Your task to perform on an android device: delete browsing data in the chrome app Image 0: 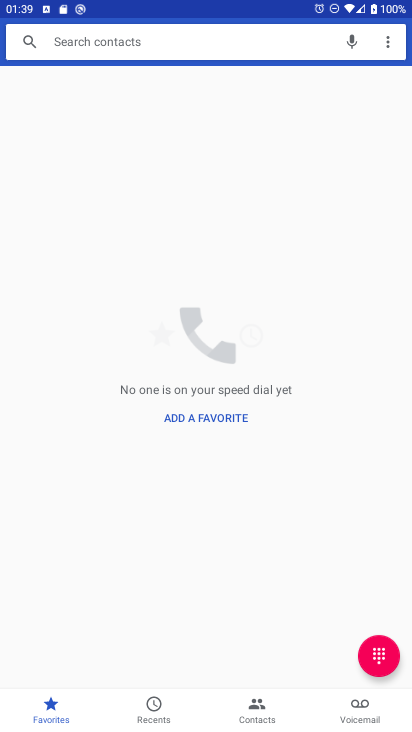
Step 0: press home button
Your task to perform on an android device: delete browsing data in the chrome app Image 1: 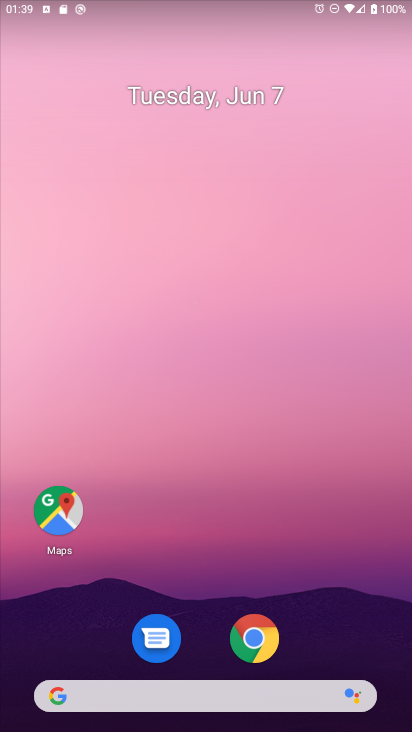
Step 1: drag from (206, 707) to (225, 131)
Your task to perform on an android device: delete browsing data in the chrome app Image 2: 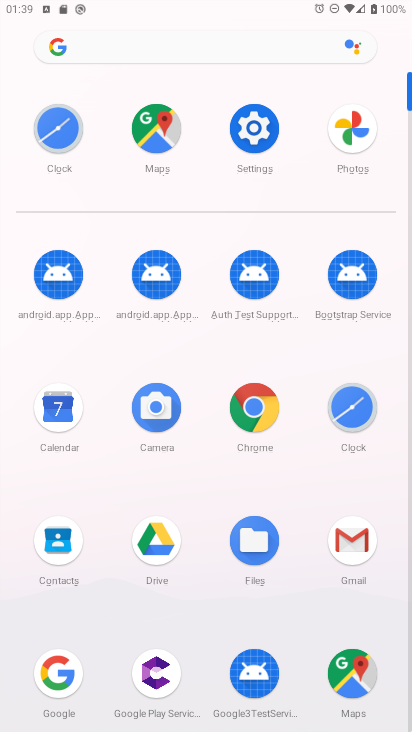
Step 2: click (367, 421)
Your task to perform on an android device: delete browsing data in the chrome app Image 3: 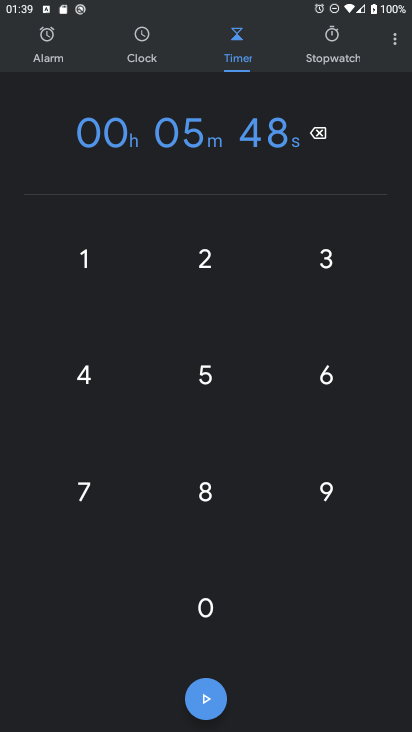
Step 3: click (377, 43)
Your task to perform on an android device: delete browsing data in the chrome app Image 4: 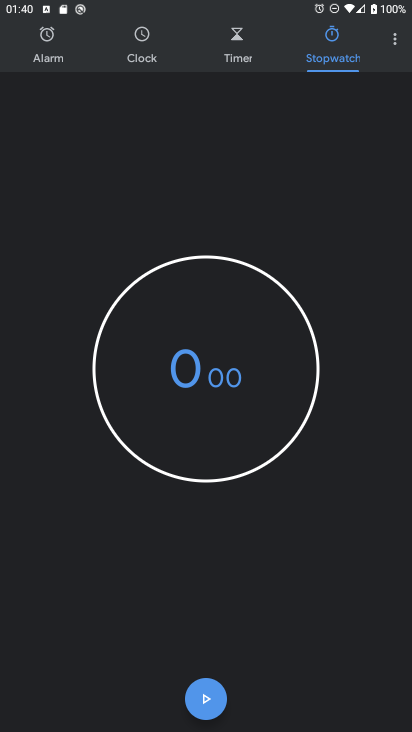
Step 4: click (392, 45)
Your task to perform on an android device: delete browsing data in the chrome app Image 5: 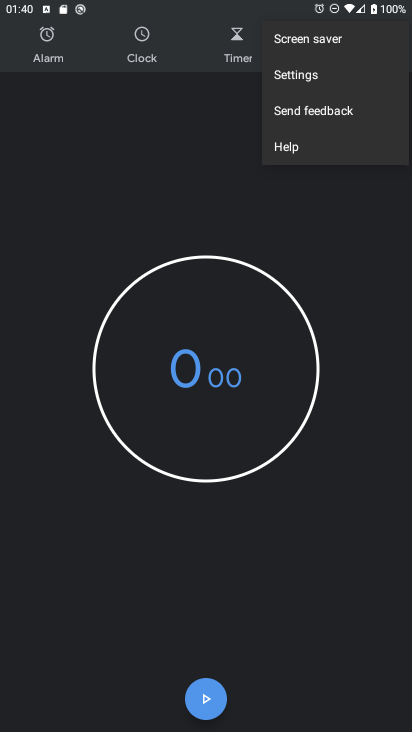
Step 5: click (314, 61)
Your task to perform on an android device: delete browsing data in the chrome app Image 6: 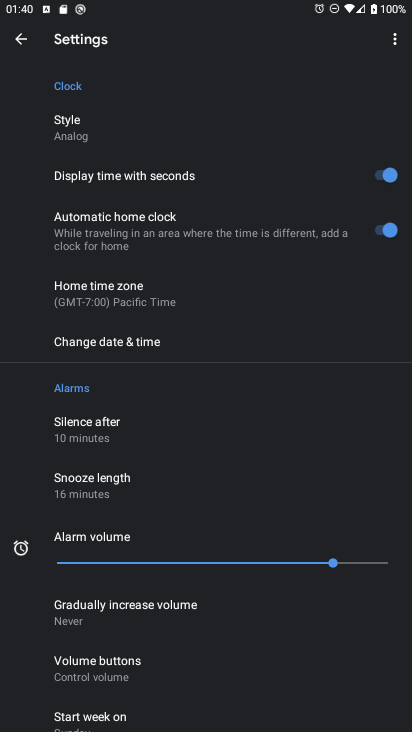
Step 6: press home button
Your task to perform on an android device: delete browsing data in the chrome app Image 7: 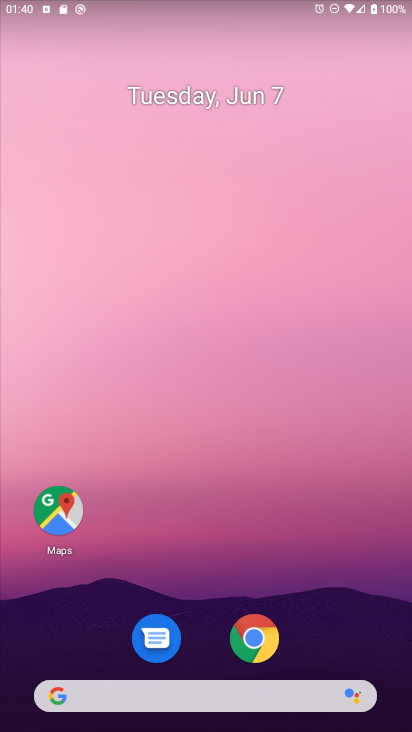
Step 7: drag from (190, 726) to (185, 220)
Your task to perform on an android device: delete browsing data in the chrome app Image 8: 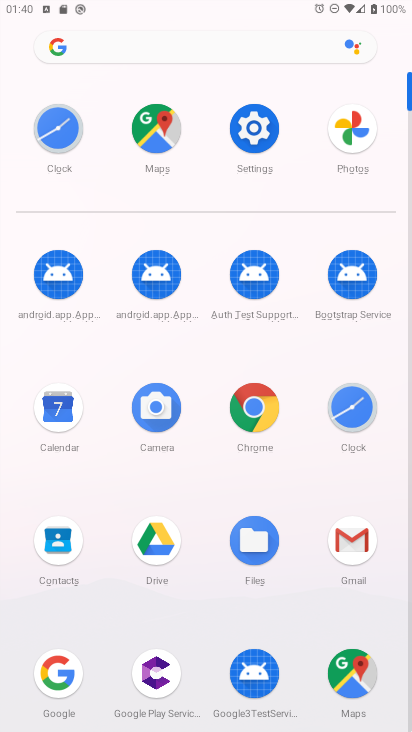
Step 8: click (253, 404)
Your task to perform on an android device: delete browsing data in the chrome app Image 9: 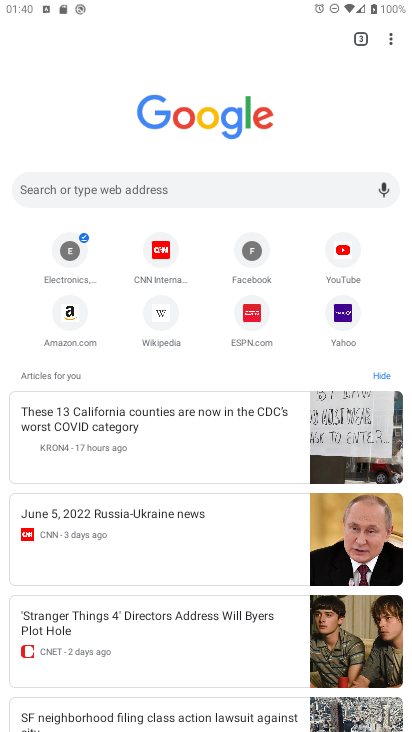
Step 9: click (382, 47)
Your task to perform on an android device: delete browsing data in the chrome app Image 10: 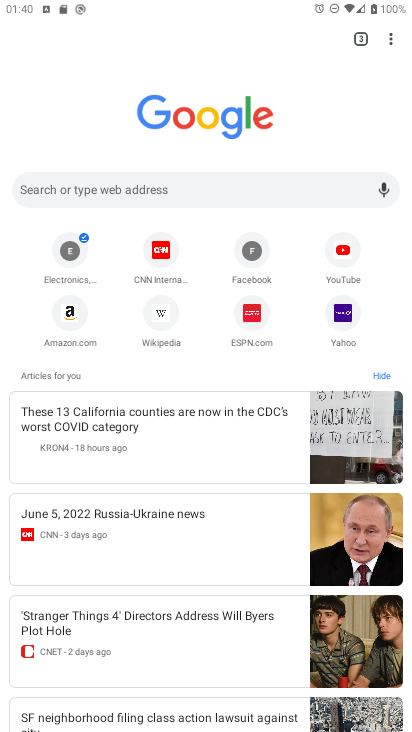
Step 10: click (388, 53)
Your task to perform on an android device: delete browsing data in the chrome app Image 11: 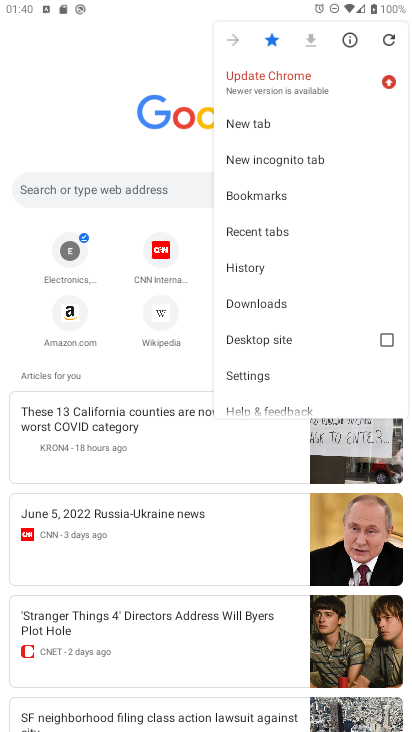
Step 11: click (266, 270)
Your task to perform on an android device: delete browsing data in the chrome app Image 12: 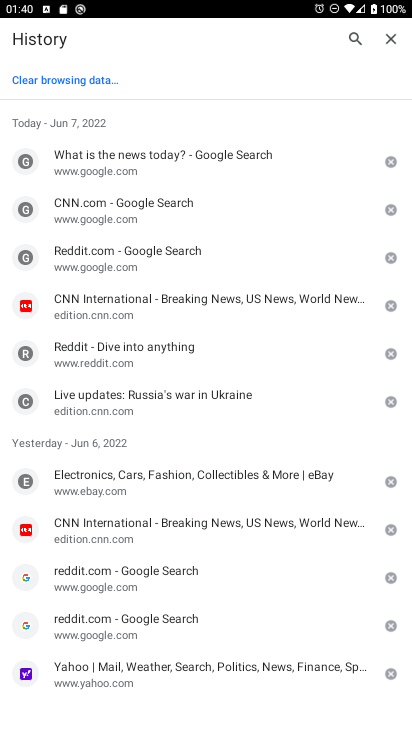
Step 12: click (69, 84)
Your task to perform on an android device: delete browsing data in the chrome app Image 13: 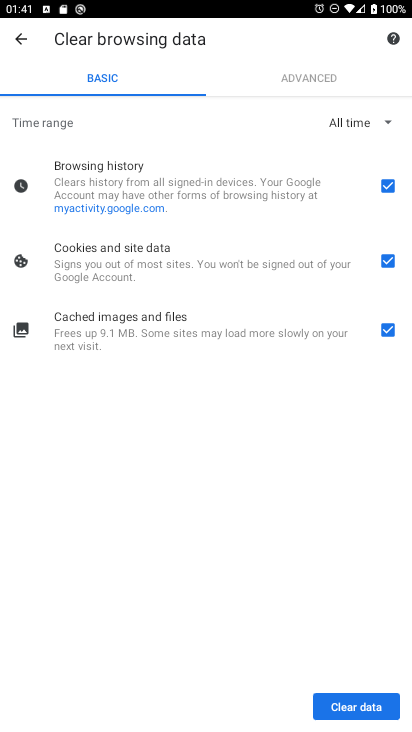
Step 13: click (342, 704)
Your task to perform on an android device: delete browsing data in the chrome app Image 14: 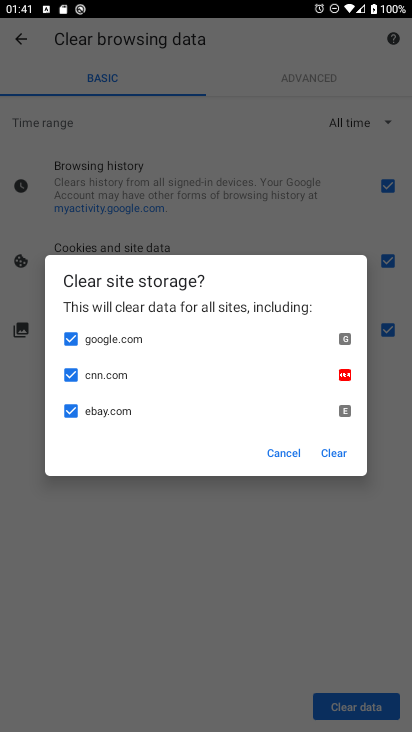
Step 14: task complete